Your task to perform on an android device: find photos in the google photos app Image 0: 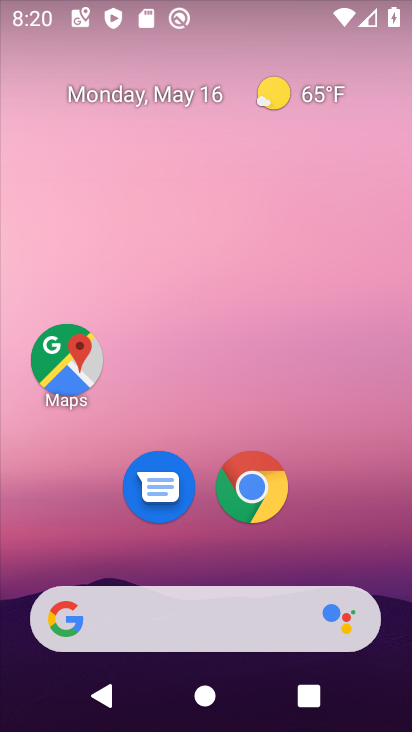
Step 0: drag from (375, 547) to (335, 175)
Your task to perform on an android device: find photos in the google photos app Image 1: 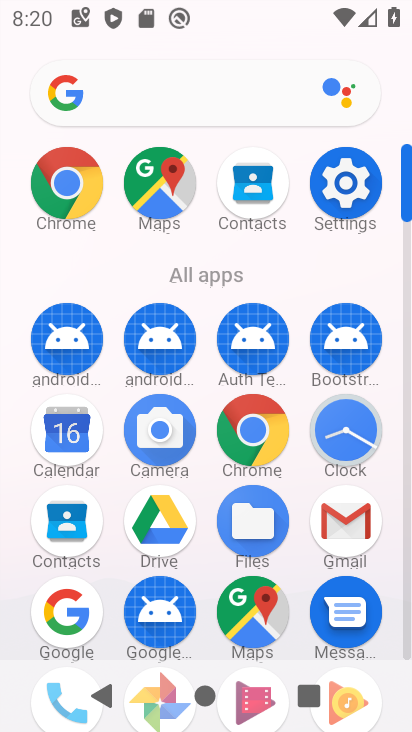
Step 1: drag from (400, 512) to (394, 354)
Your task to perform on an android device: find photos in the google photos app Image 2: 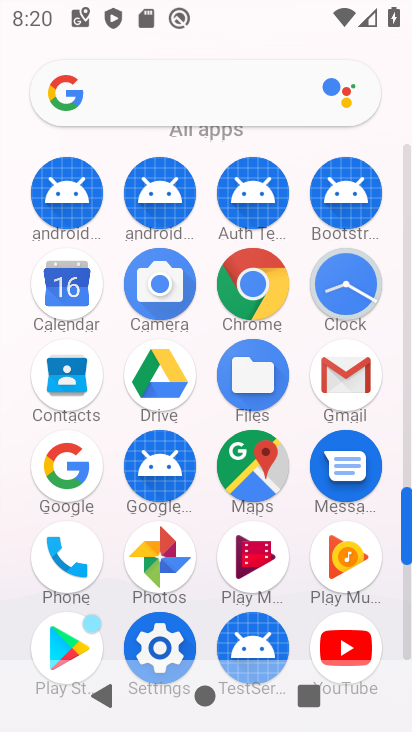
Step 2: drag from (392, 607) to (383, 414)
Your task to perform on an android device: find photos in the google photos app Image 3: 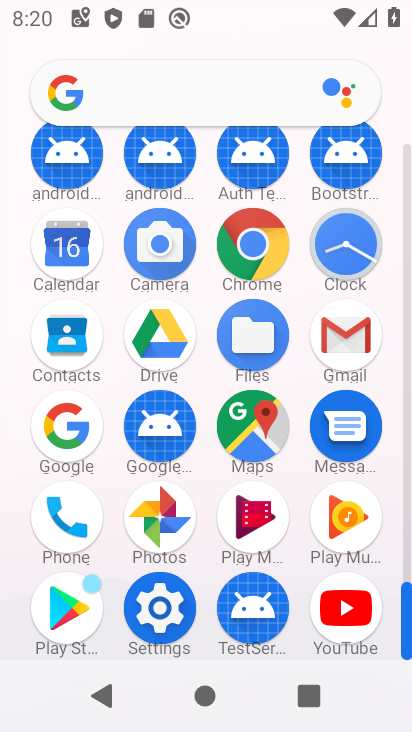
Step 3: click (148, 534)
Your task to perform on an android device: find photos in the google photos app Image 4: 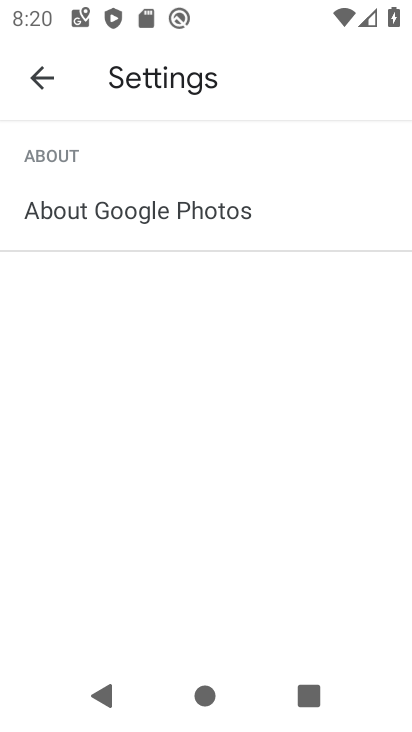
Step 4: click (44, 87)
Your task to perform on an android device: find photos in the google photos app Image 5: 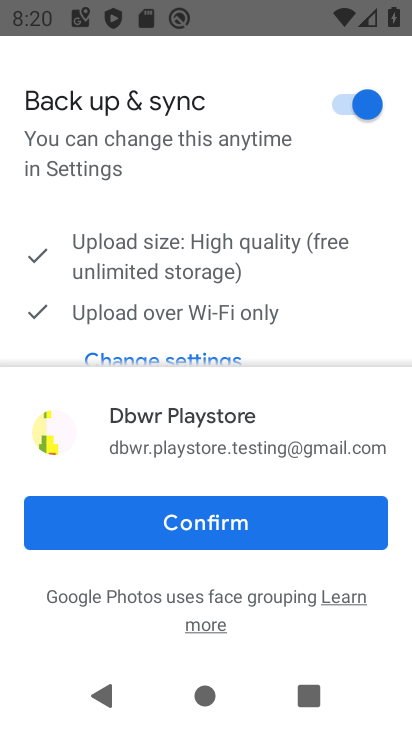
Step 5: click (238, 518)
Your task to perform on an android device: find photos in the google photos app Image 6: 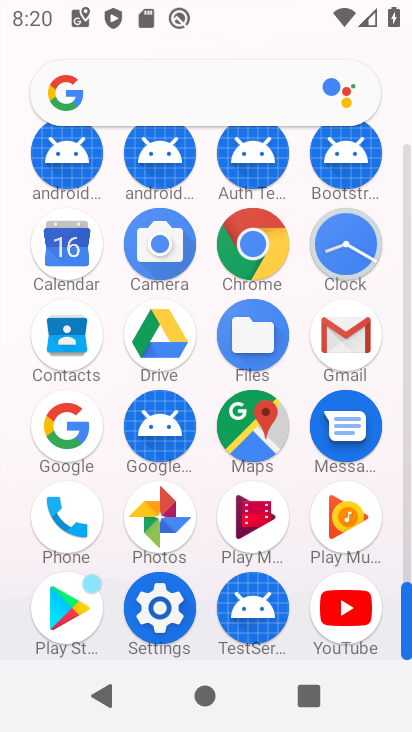
Step 6: click (155, 517)
Your task to perform on an android device: find photos in the google photos app Image 7: 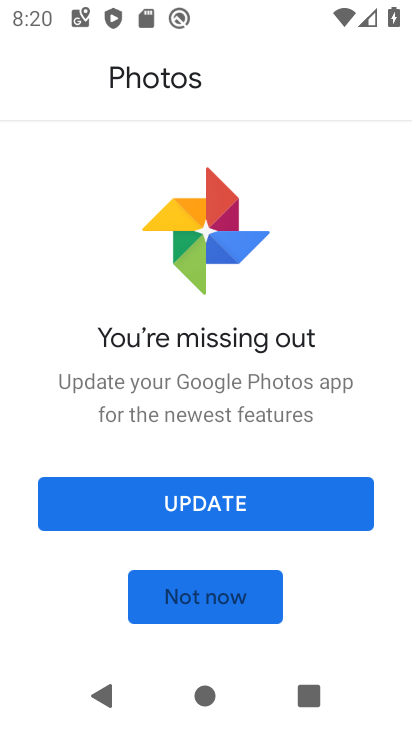
Step 7: click (263, 495)
Your task to perform on an android device: find photos in the google photos app Image 8: 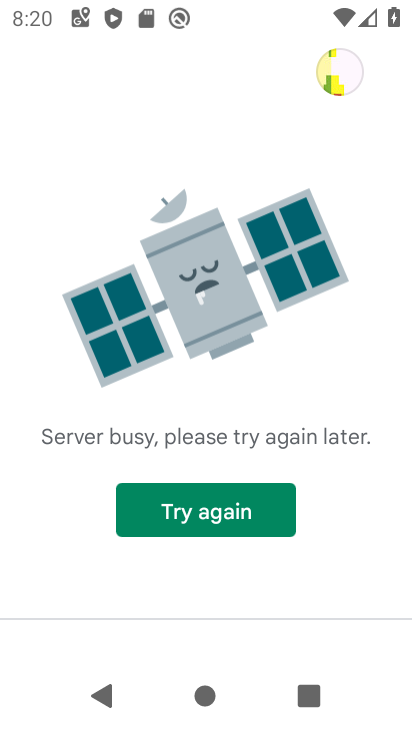
Step 8: click (236, 509)
Your task to perform on an android device: find photos in the google photos app Image 9: 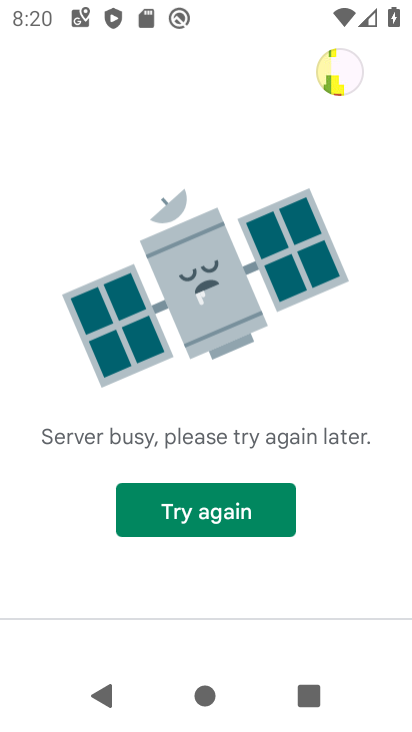
Step 9: click (236, 509)
Your task to perform on an android device: find photos in the google photos app Image 10: 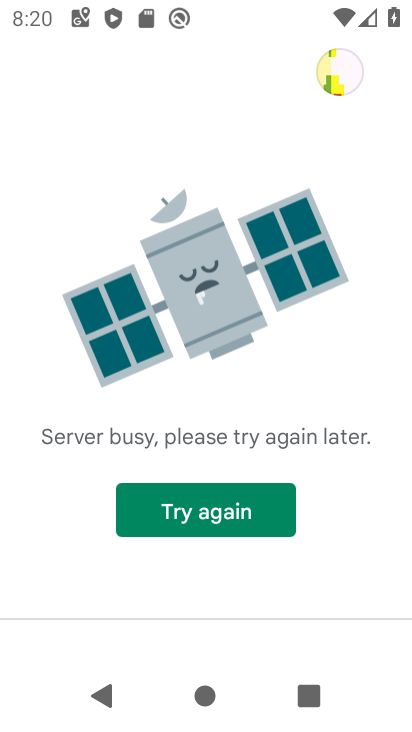
Step 10: task complete